Your task to perform on an android device: uninstall "Fetch Rewards" Image 0: 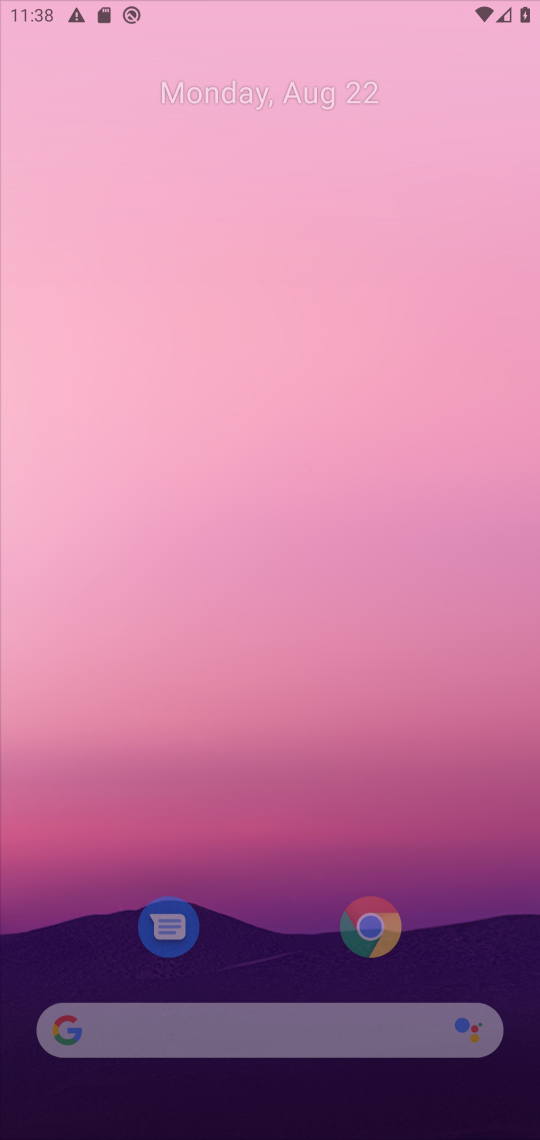
Step 0: press home button
Your task to perform on an android device: uninstall "Fetch Rewards" Image 1: 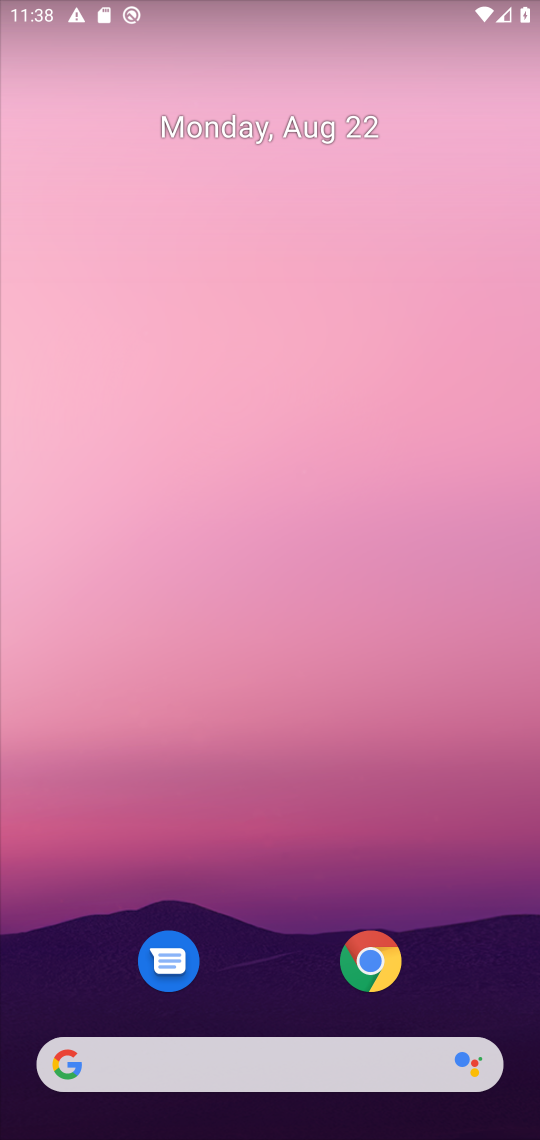
Step 1: drag from (321, 1006) to (327, 0)
Your task to perform on an android device: uninstall "Fetch Rewards" Image 2: 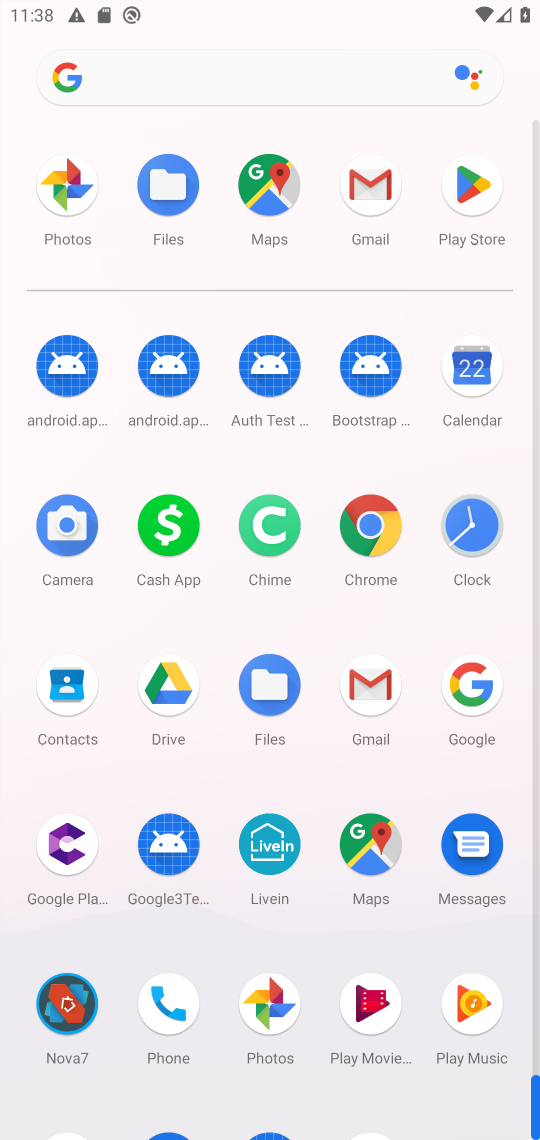
Step 2: click (453, 179)
Your task to perform on an android device: uninstall "Fetch Rewards" Image 3: 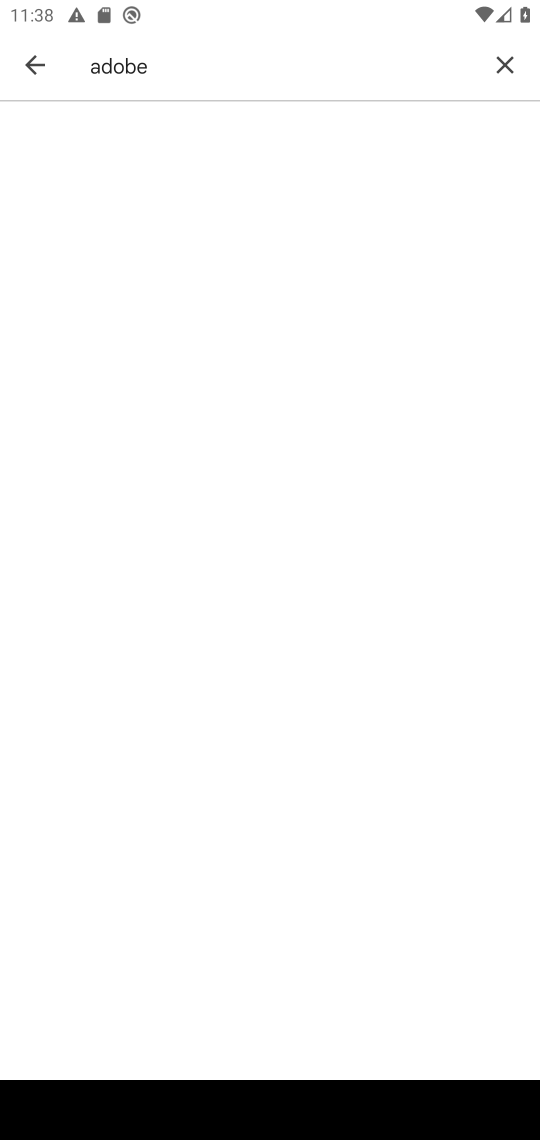
Step 3: click (493, 60)
Your task to perform on an android device: uninstall "Fetch Rewards" Image 4: 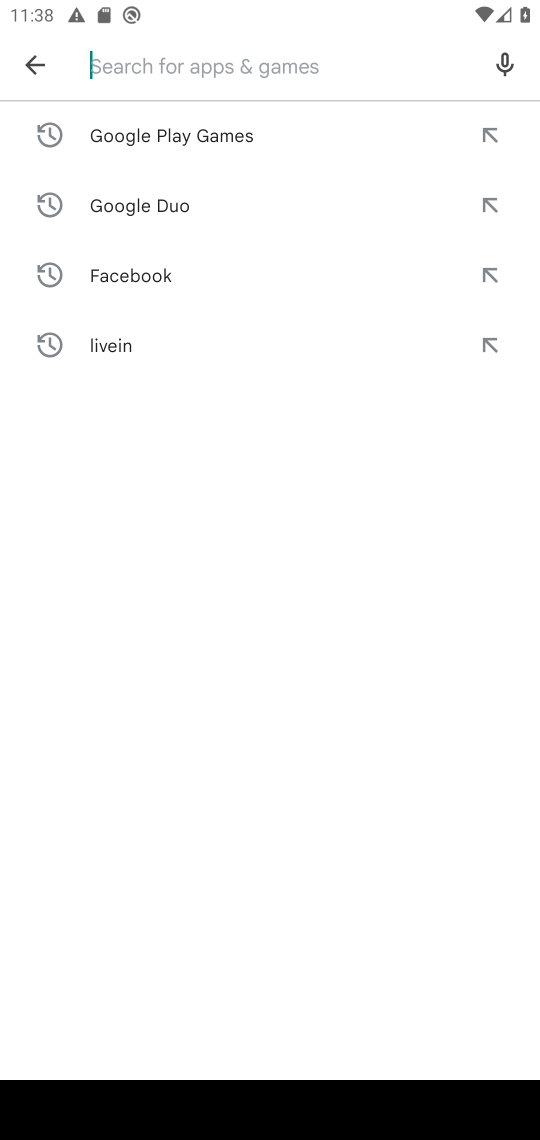
Step 4: task complete